Your task to perform on an android device: change timer sound Image 0: 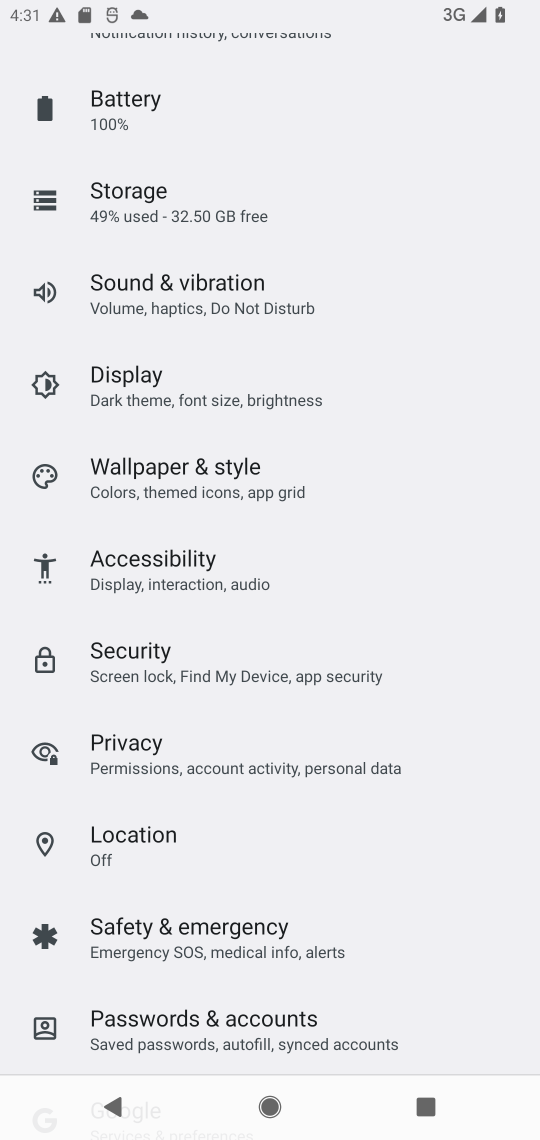
Step 0: press home button
Your task to perform on an android device: change timer sound Image 1: 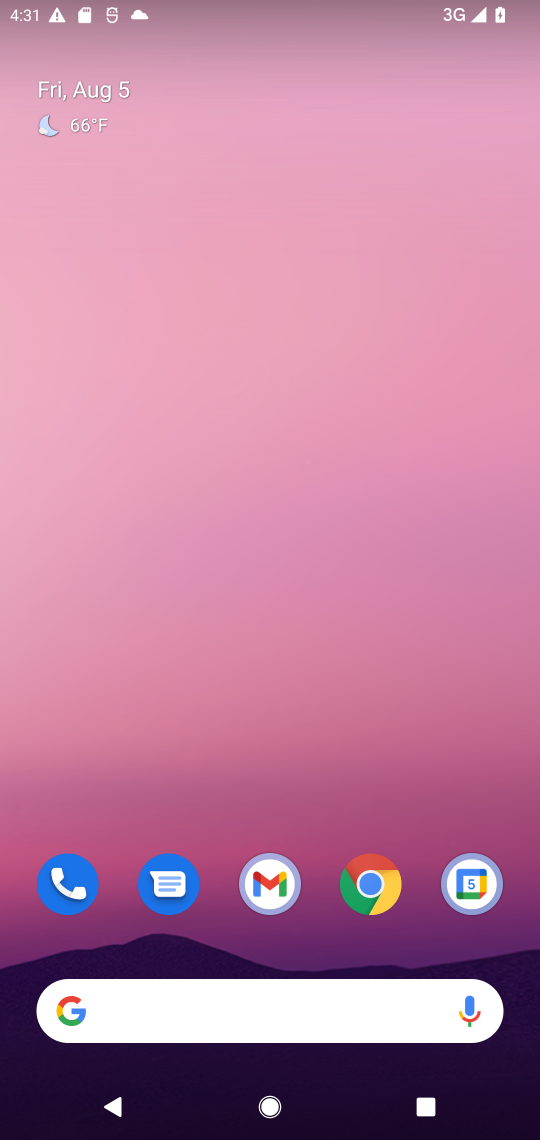
Step 1: drag from (337, 911) to (266, 116)
Your task to perform on an android device: change timer sound Image 2: 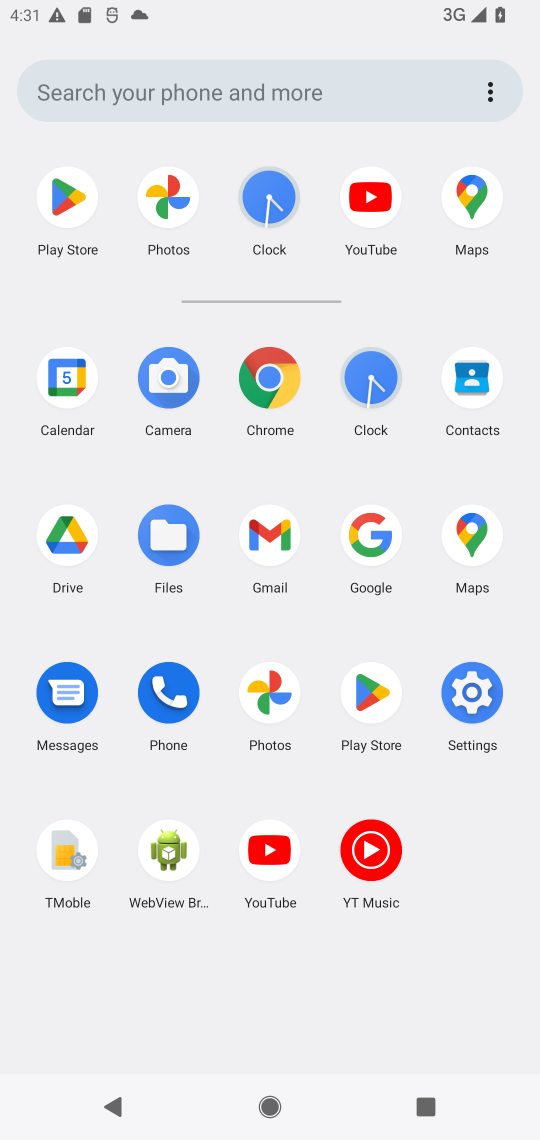
Step 2: click (266, 207)
Your task to perform on an android device: change timer sound Image 3: 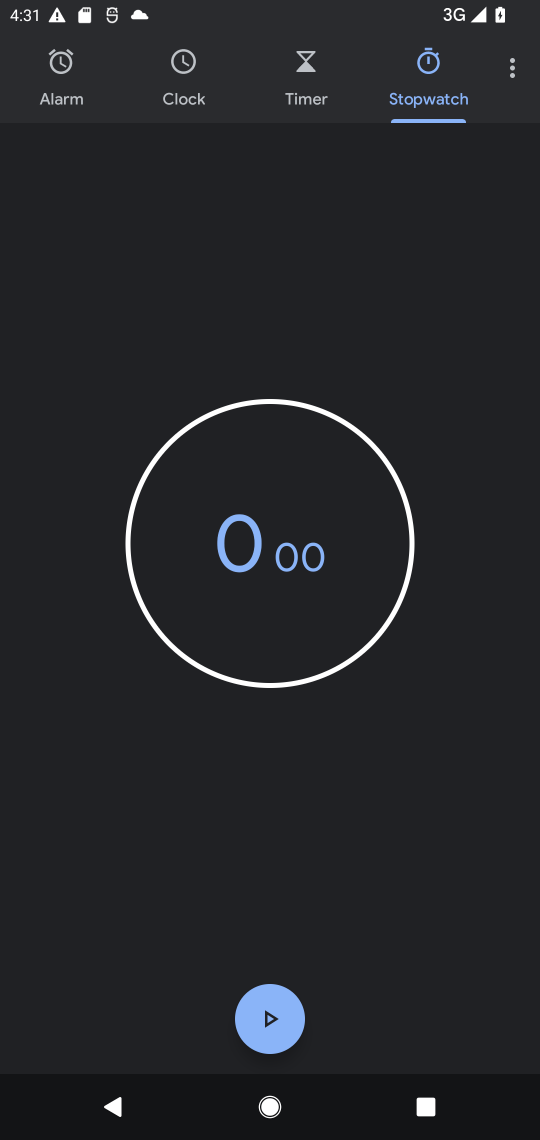
Step 3: click (511, 59)
Your task to perform on an android device: change timer sound Image 4: 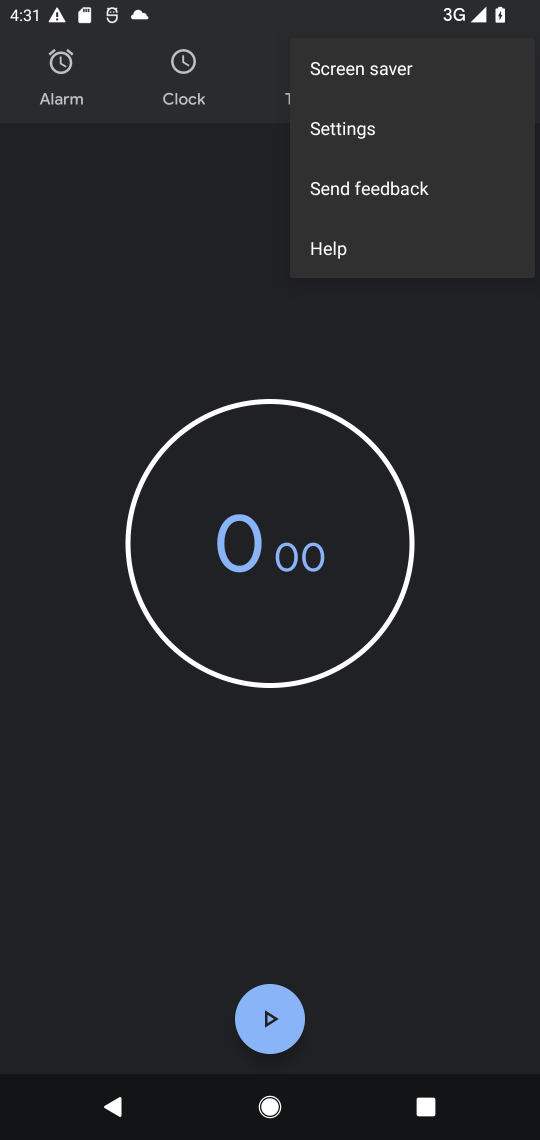
Step 4: click (349, 132)
Your task to perform on an android device: change timer sound Image 5: 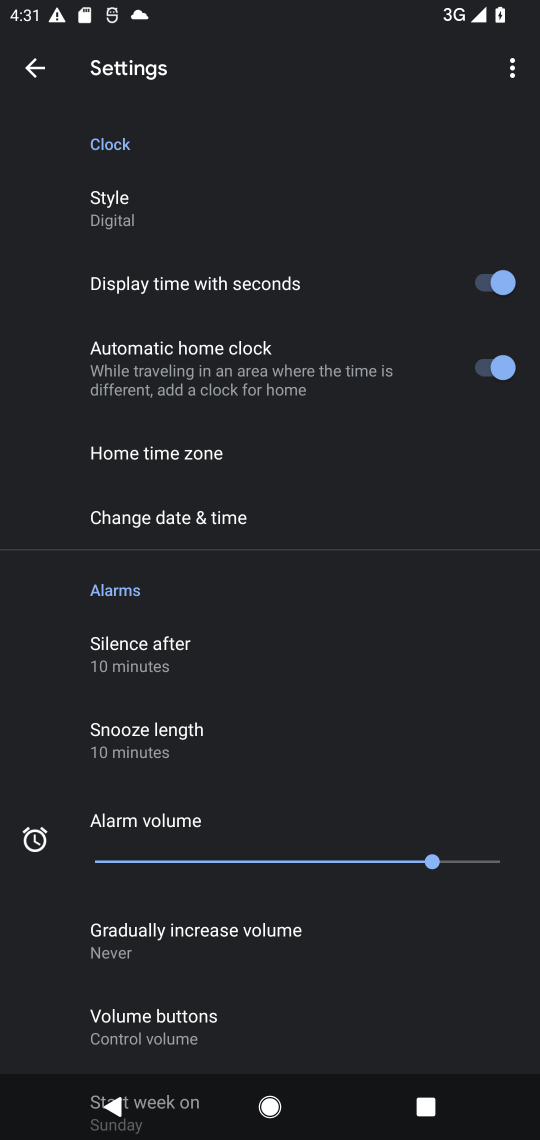
Step 5: drag from (186, 1016) to (231, 304)
Your task to perform on an android device: change timer sound Image 6: 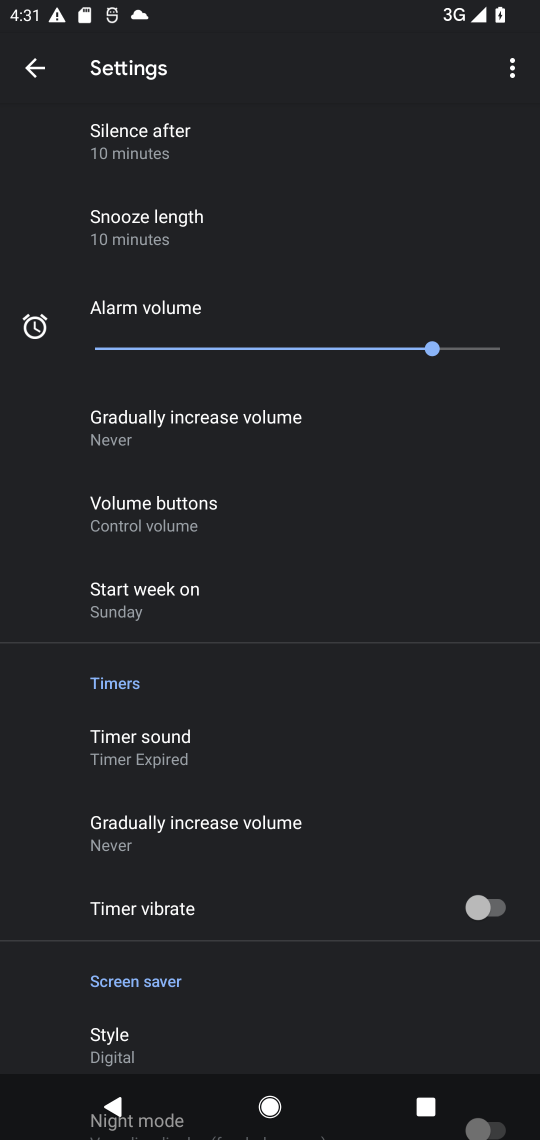
Step 6: click (156, 757)
Your task to perform on an android device: change timer sound Image 7: 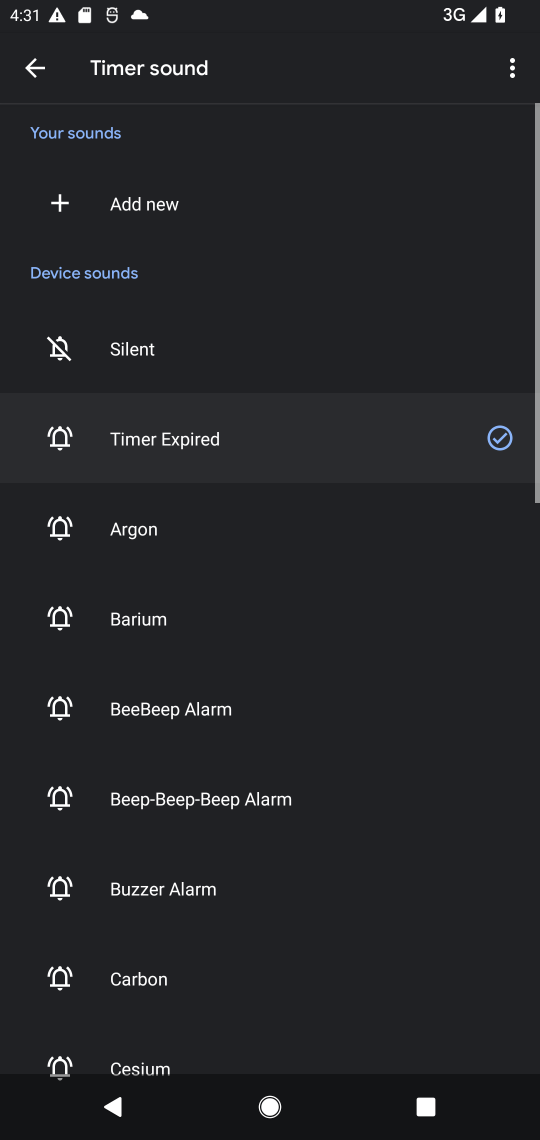
Step 7: click (156, 613)
Your task to perform on an android device: change timer sound Image 8: 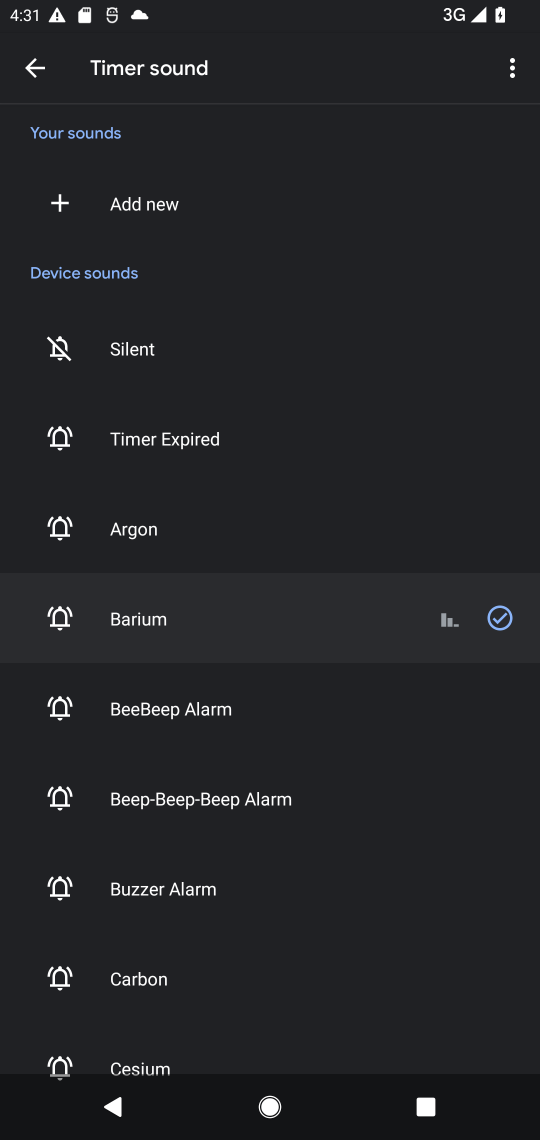
Step 8: task complete